Your task to perform on an android device: Open the Play Movies app and select the watchlist tab. Image 0: 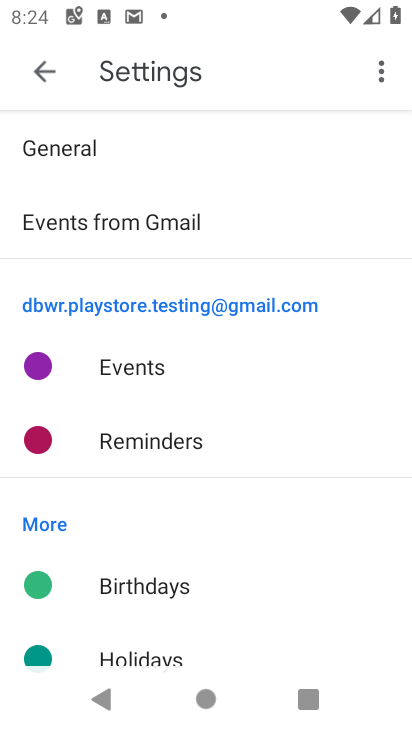
Step 0: press home button
Your task to perform on an android device: Open the Play Movies app and select the watchlist tab. Image 1: 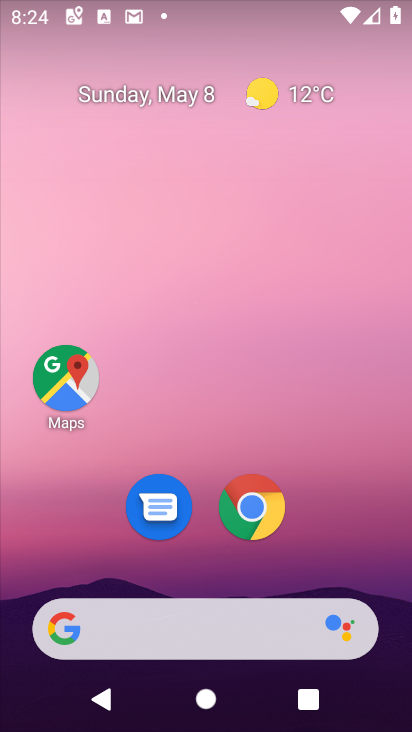
Step 1: drag from (253, 694) to (253, 159)
Your task to perform on an android device: Open the Play Movies app and select the watchlist tab. Image 2: 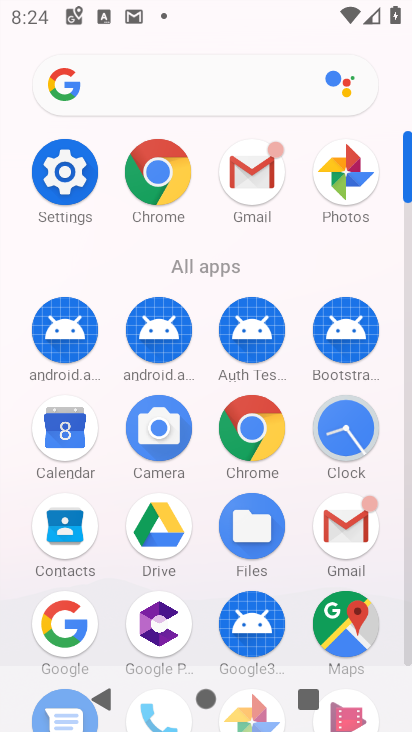
Step 2: drag from (309, 625) to (283, 172)
Your task to perform on an android device: Open the Play Movies app and select the watchlist tab. Image 3: 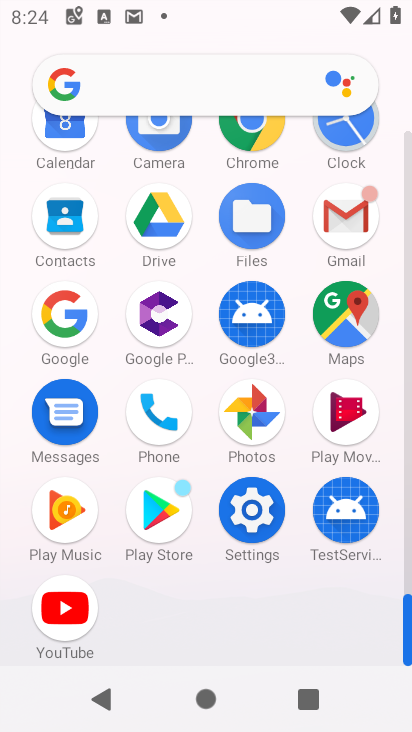
Step 3: click (342, 415)
Your task to perform on an android device: Open the Play Movies app and select the watchlist tab. Image 4: 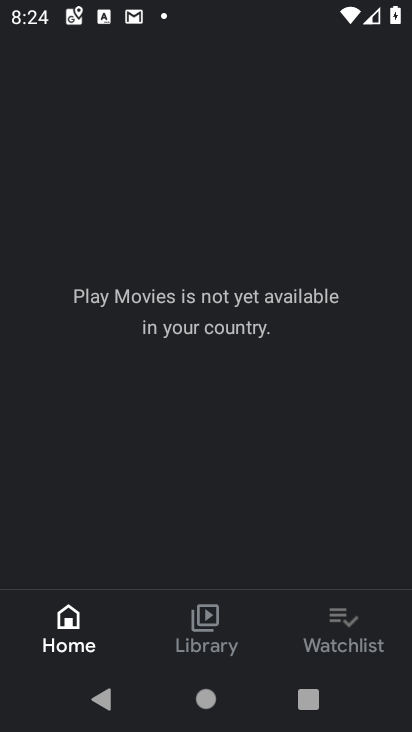
Step 4: click (343, 633)
Your task to perform on an android device: Open the Play Movies app and select the watchlist tab. Image 5: 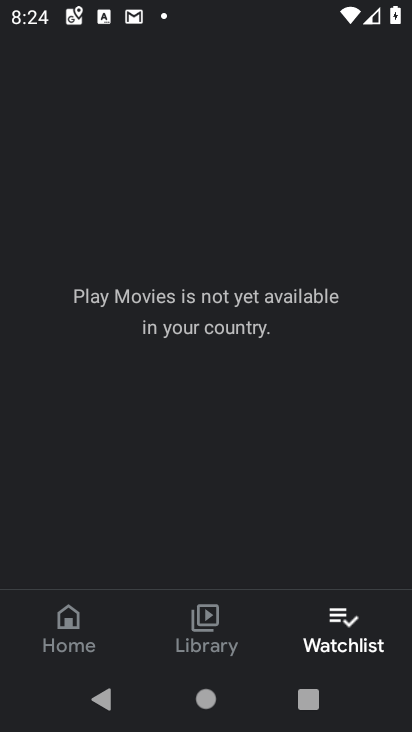
Step 5: task complete